Your task to perform on an android device: toggle wifi Image 0: 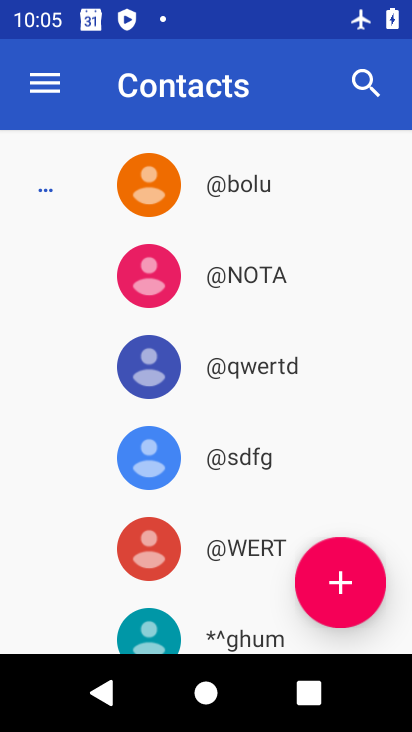
Step 0: press home button
Your task to perform on an android device: toggle wifi Image 1: 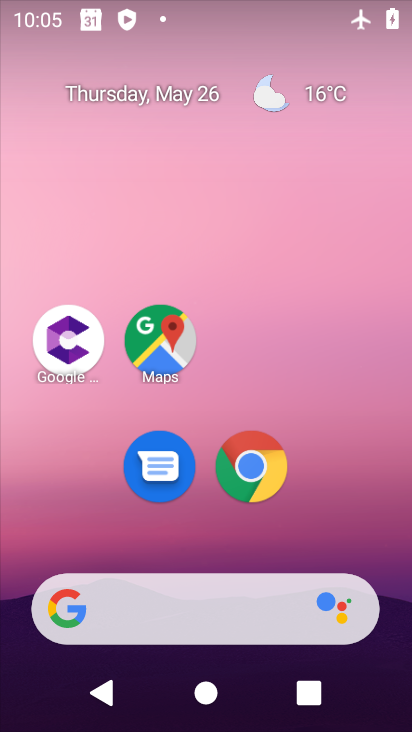
Step 1: drag from (326, 515) to (256, 117)
Your task to perform on an android device: toggle wifi Image 2: 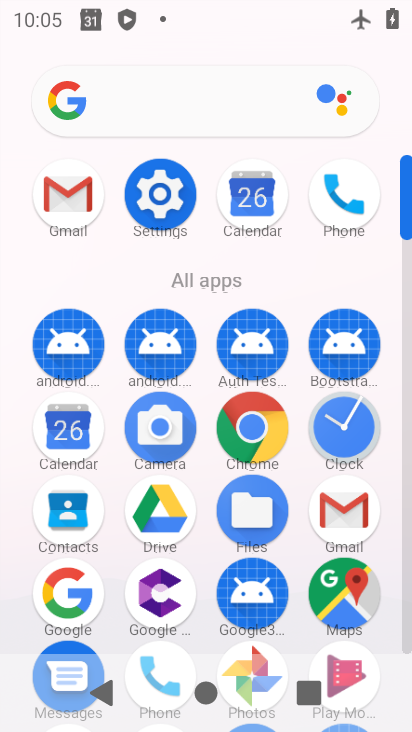
Step 2: click (160, 196)
Your task to perform on an android device: toggle wifi Image 3: 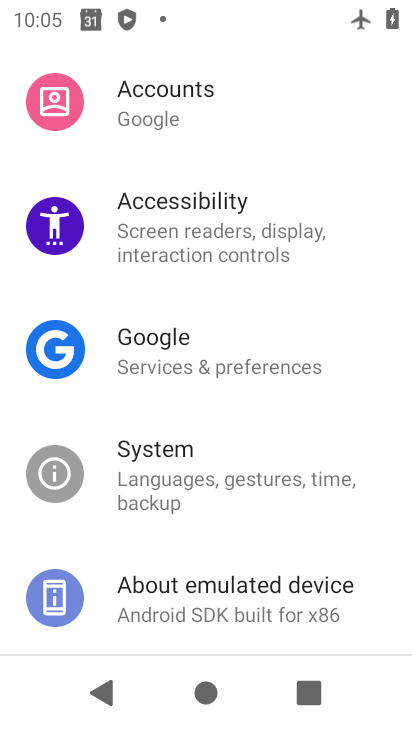
Step 3: drag from (236, 172) to (315, 658)
Your task to perform on an android device: toggle wifi Image 4: 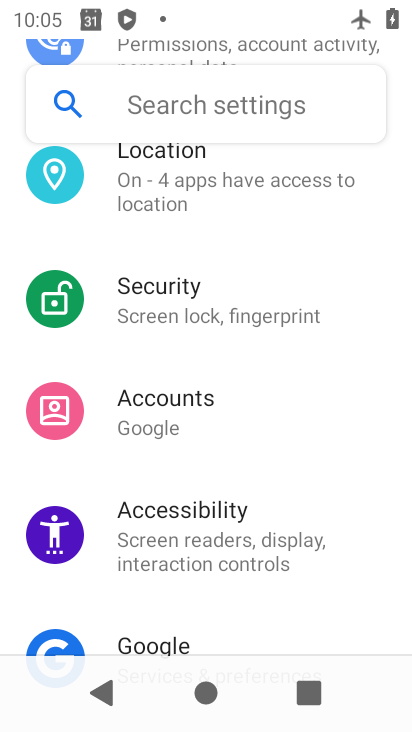
Step 4: drag from (217, 236) to (344, 682)
Your task to perform on an android device: toggle wifi Image 5: 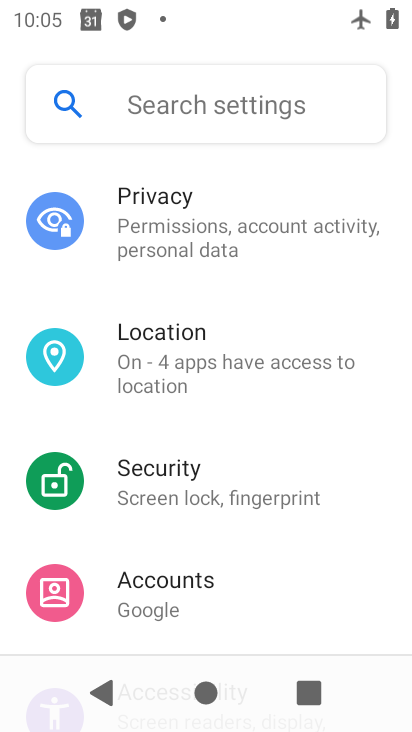
Step 5: drag from (160, 292) to (252, 649)
Your task to perform on an android device: toggle wifi Image 6: 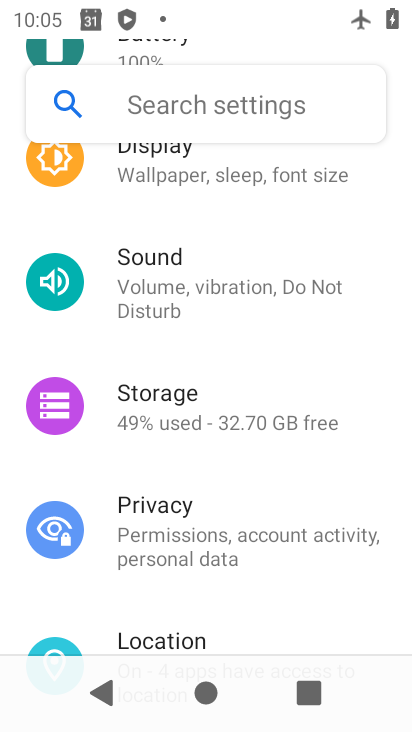
Step 6: drag from (185, 226) to (291, 495)
Your task to perform on an android device: toggle wifi Image 7: 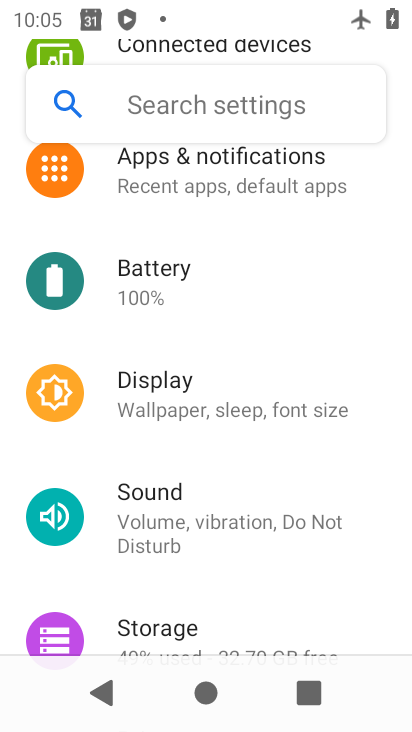
Step 7: drag from (180, 233) to (359, 648)
Your task to perform on an android device: toggle wifi Image 8: 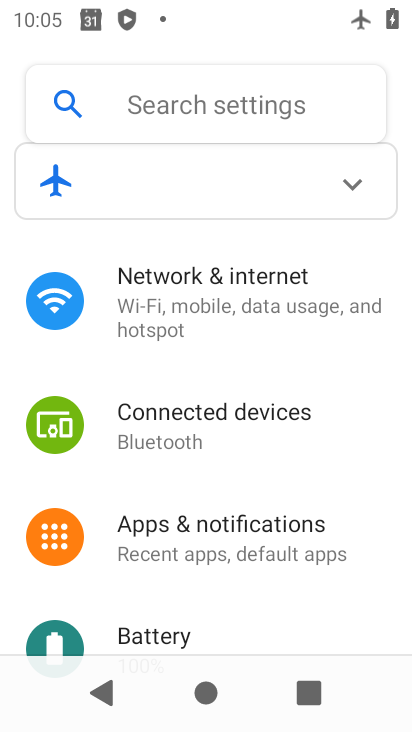
Step 8: click (183, 283)
Your task to perform on an android device: toggle wifi Image 9: 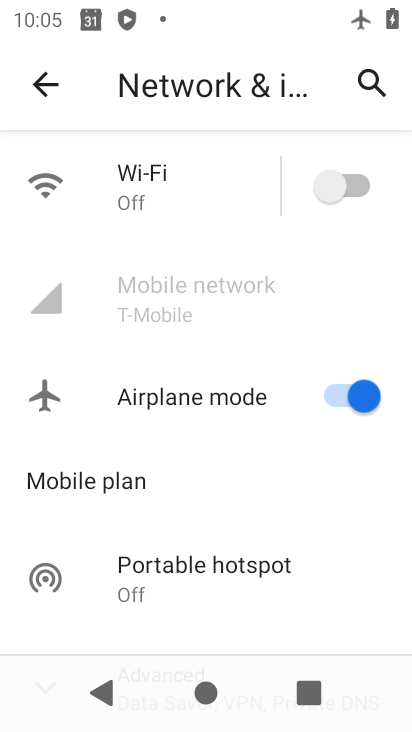
Step 9: click (315, 174)
Your task to perform on an android device: toggle wifi Image 10: 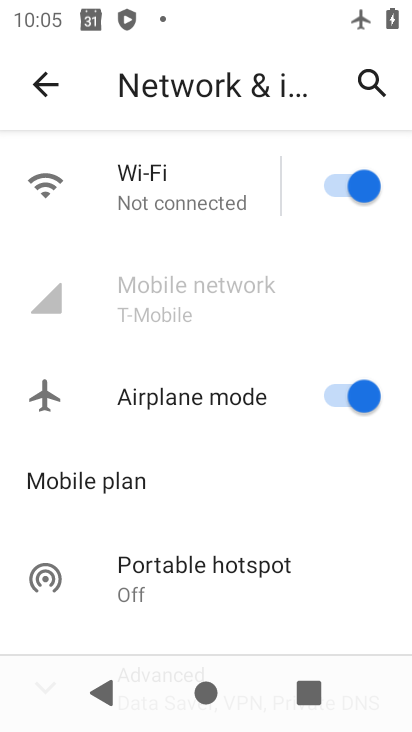
Step 10: task complete